Your task to perform on an android device: Search for Mexican restaurants on Maps Image 0: 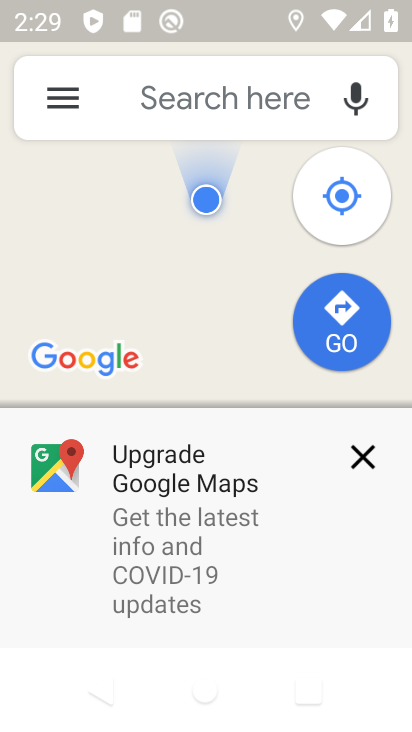
Step 0: press home button
Your task to perform on an android device: Search for Mexican restaurants on Maps Image 1: 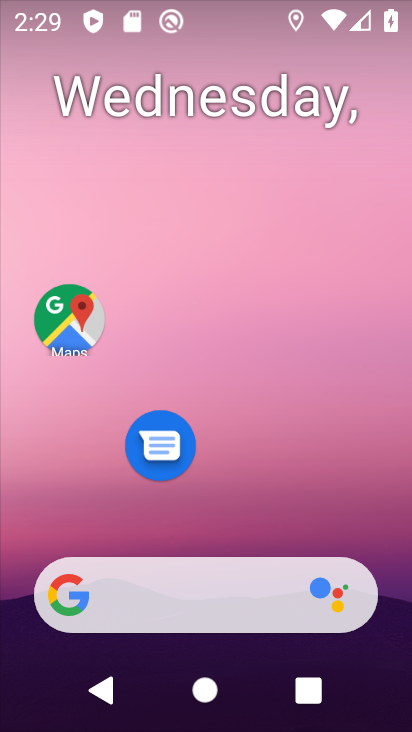
Step 1: drag from (212, 529) to (279, 90)
Your task to perform on an android device: Search for Mexican restaurants on Maps Image 2: 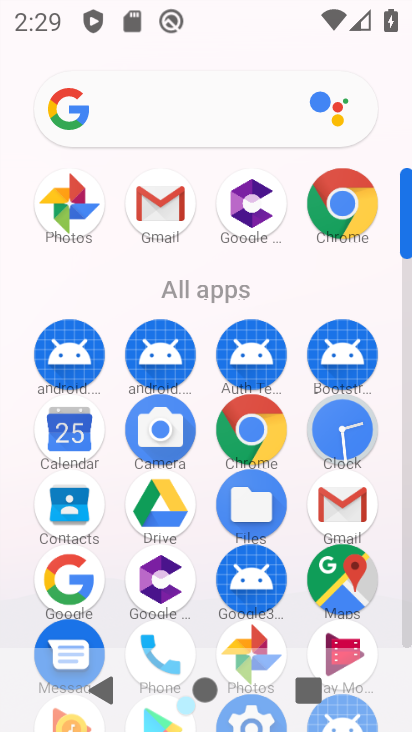
Step 2: click (332, 584)
Your task to perform on an android device: Search for Mexican restaurants on Maps Image 3: 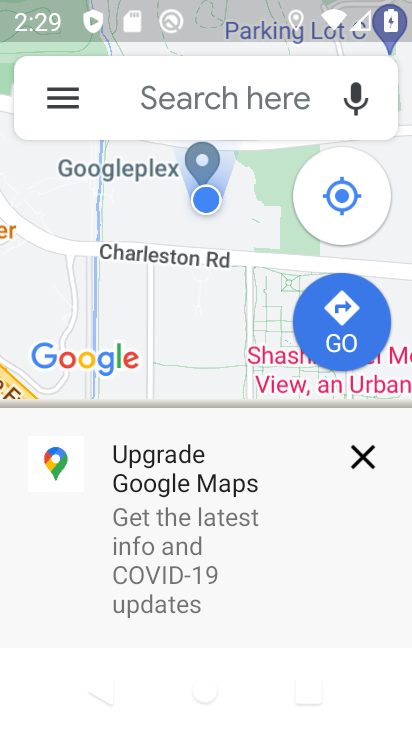
Step 3: click (355, 447)
Your task to perform on an android device: Search for Mexican restaurants on Maps Image 4: 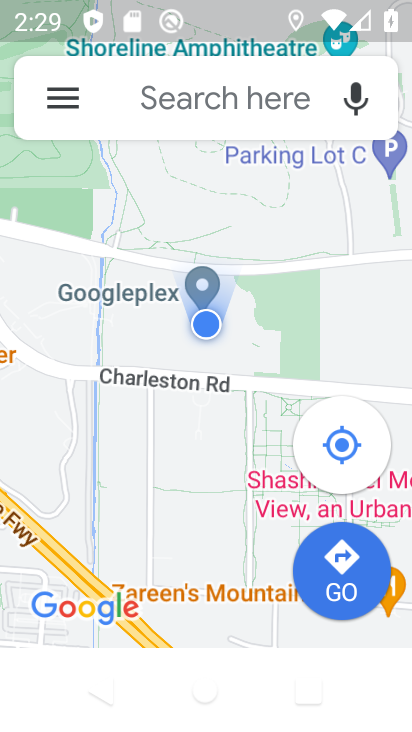
Step 4: click (210, 104)
Your task to perform on an android device: Search for Mexican restaurants on Maps Image 5: 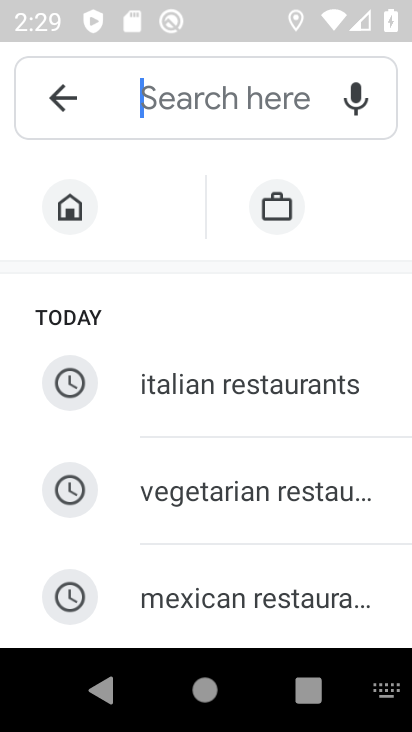
Step 5: click (223, 598)
Your task to perform on an android device: Search for Mexican restaurants on Maps Image 6: 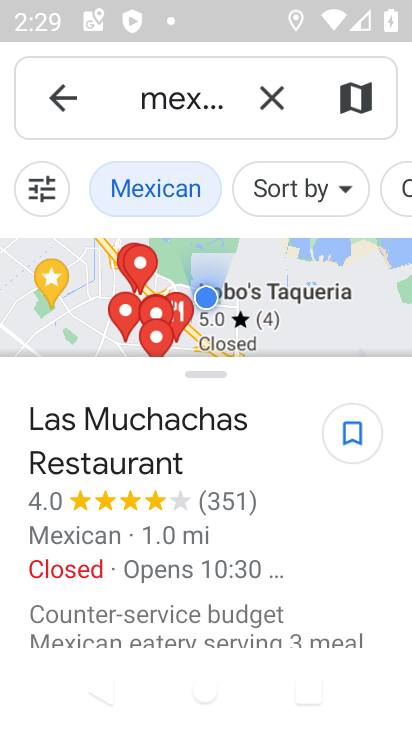
Step 6: task complete